Your task to perform on an android device: turn notification dots off Image 0: 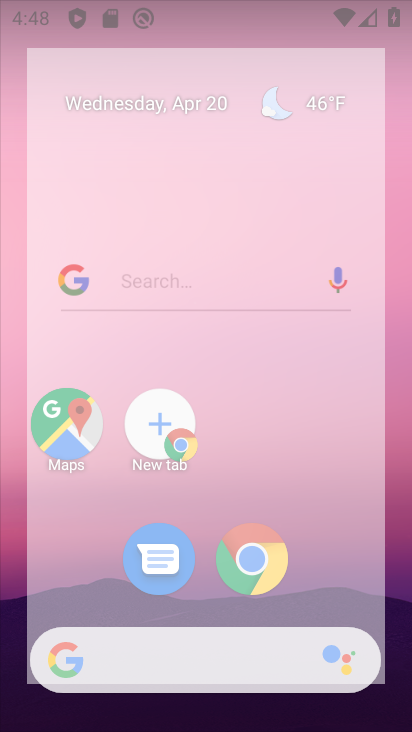
Step 0: drag from (345, 554) to (215, 236)
Your task to perform on an android device: turn notification dots off Image 1: 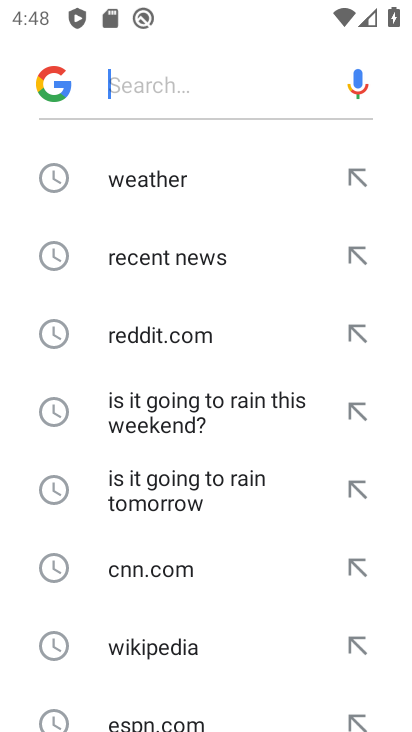
Step 1: press home button
Your task to perform on an android device: turn notification dots off Image 2: 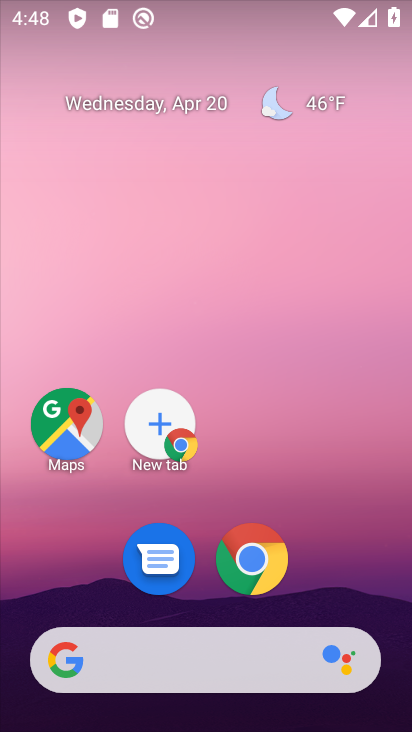
Step 2: drag from (332, 599) to (321, 268)
Your task to perform on an android device: turn notification dots off Image 3: 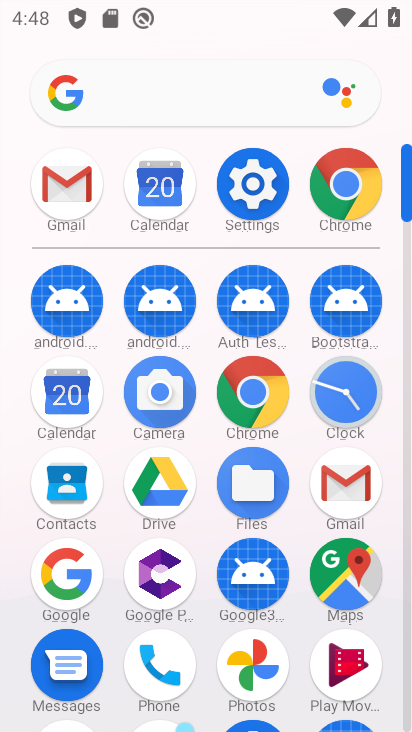
Step 3: click (258, 211)
Your task to perform on an android device: turn notification dots off Image 4: 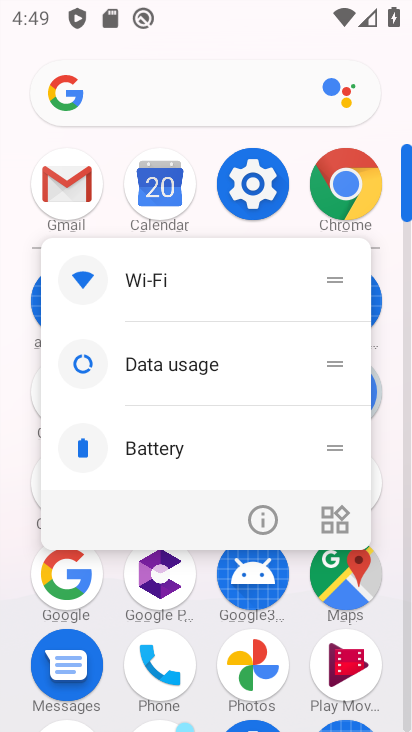
Step 4: click (251, 194)
Your task to perform on an android device: turn notification dots off Image 5: 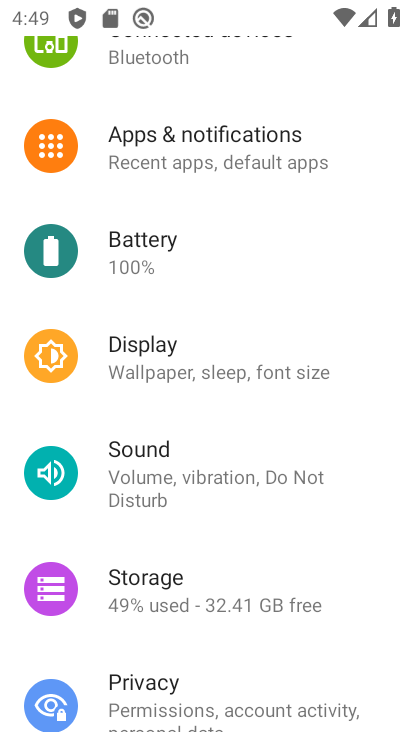
Step 5: drag from (229, 555) to (262, 233)
Your task to perform on an android device: turn notification dots off Image 6: 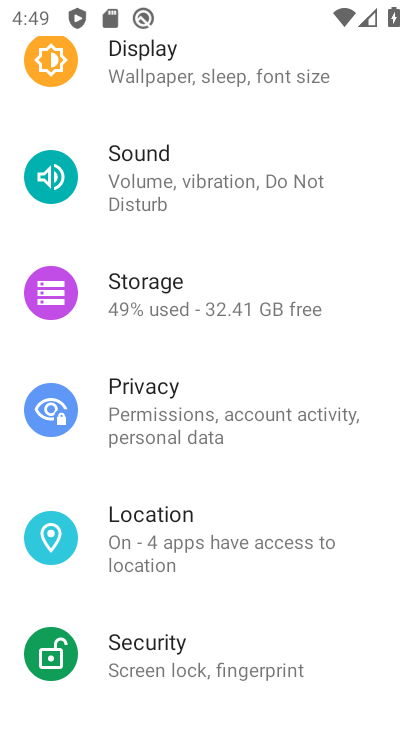
Step 6: drag from (262, 233) to (248, 636)
Your task to perform on an android device: turn notification dots off Image 7: 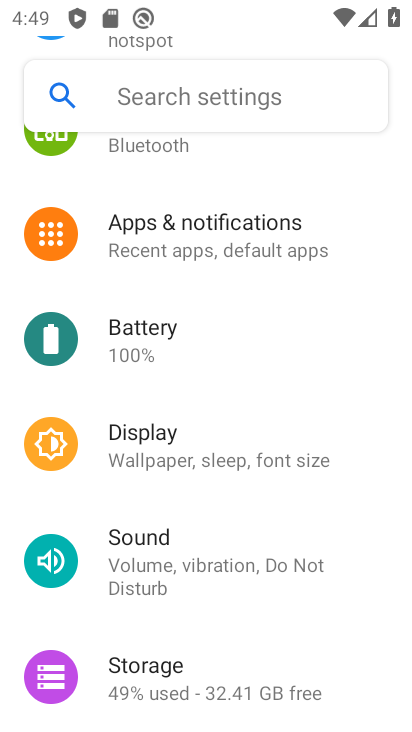
Step 7: click (187, 235)
Your task to perform on an android device: turn notification dots off Image 8: 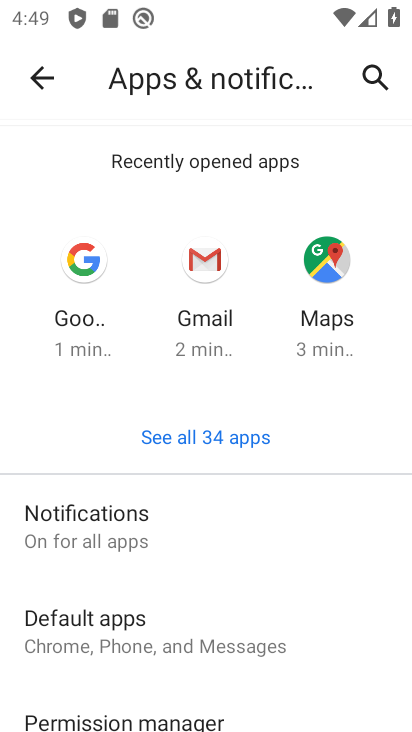
Step 8: drag from (151, 571) to (187, 300)
Your task to perform on an android device: turn notification dots off Image 9: 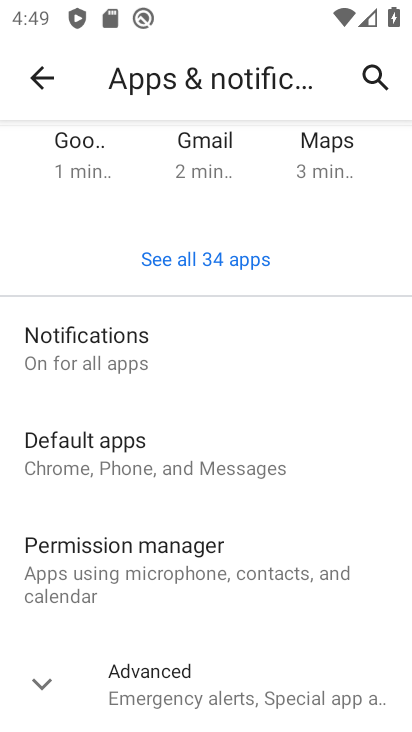
Step 9: drag from (173, 535) to (196, 317)
Your task to perform on an android device: turn notification dots off Image 10: 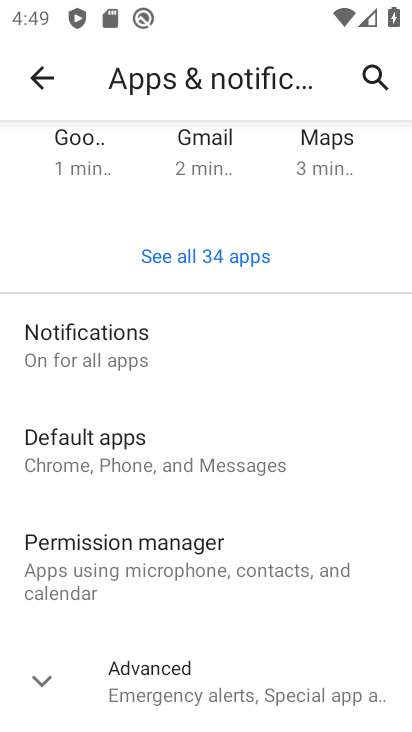
Step 10: click (181, 667)
Your task to perform on an android device: turn notification dots off Image 11: 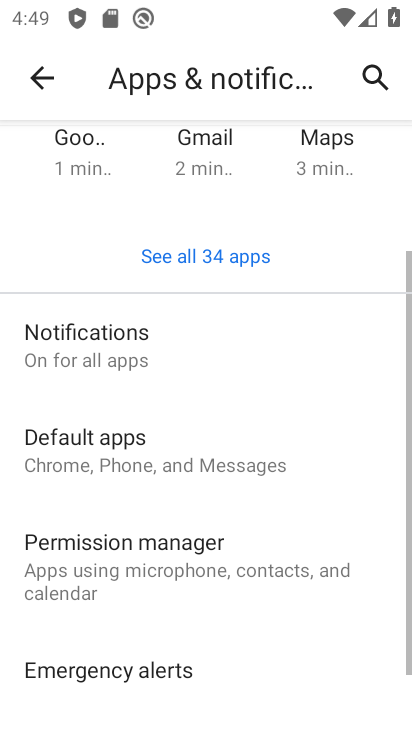
Step 11: drag from (181, 664) to (206, 395)
Your task to perform on an android device: turn notification dots off Image 12: 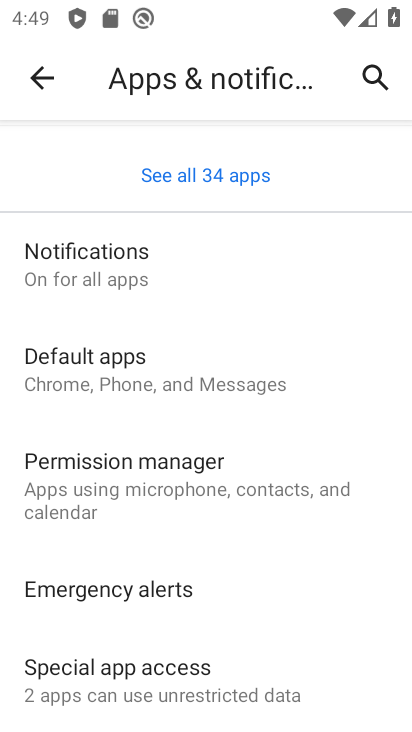
Step 12: click (156, 265)
Your task to perform on an android device: turn notification dots off Image 13: 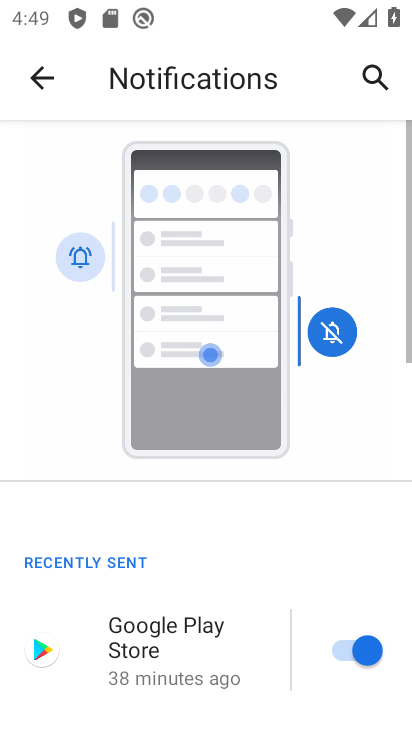
Step 13: drag from (160, 610) to (206, 341)
Your task to perform on an android device: turn notification dots off Image 14: 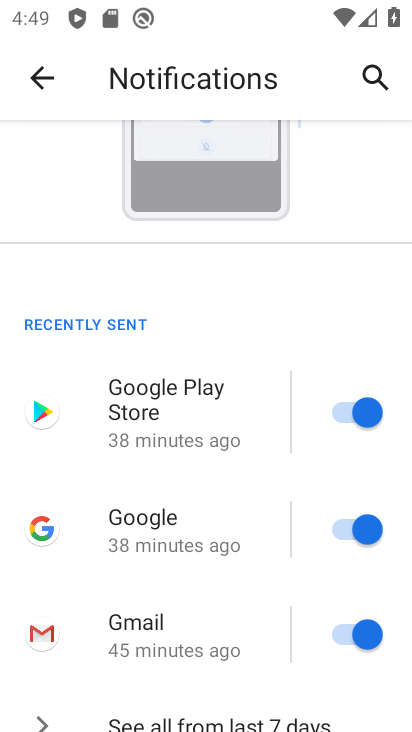
Step 14: drag from (157, 661) to (181, 332)
Your task to perform on an android device: turn notification dots off Image 15: 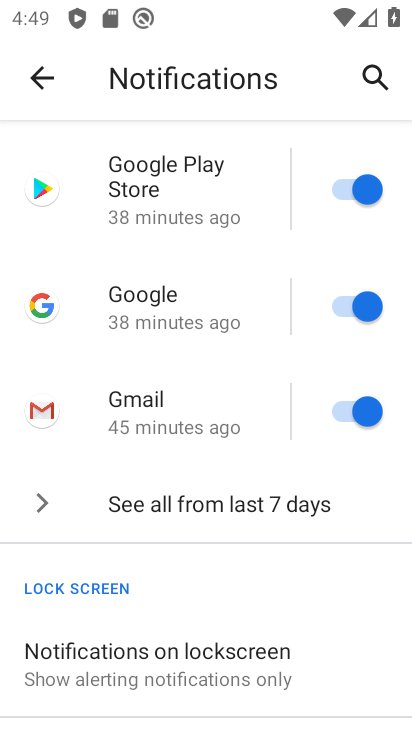
Step 15: click (148, 639)
Your task to perform on an android device: turn notification dots off Image 16: 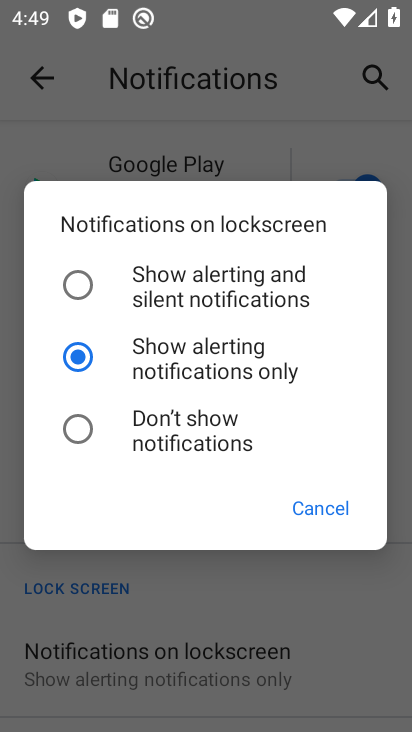
Step 16: click (339, 519)
Your task to perform on an android device: turn notification dots off Image 17: 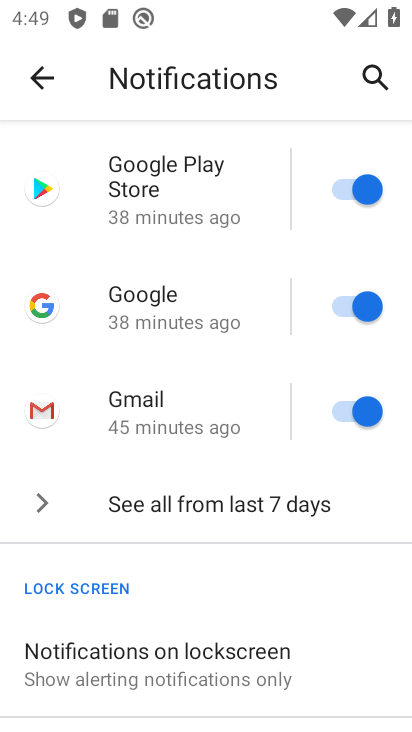
Step 17: drag from (315, 587) to (295, 254)
Your task to perform on an android device: turn notification dots off Image 18: 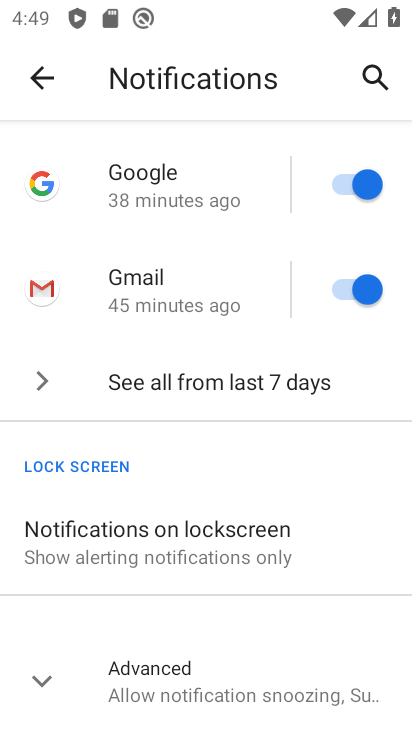
Step 18: click (195, 684)
Your task to perform on an android device: turn notification dots off Image 19: 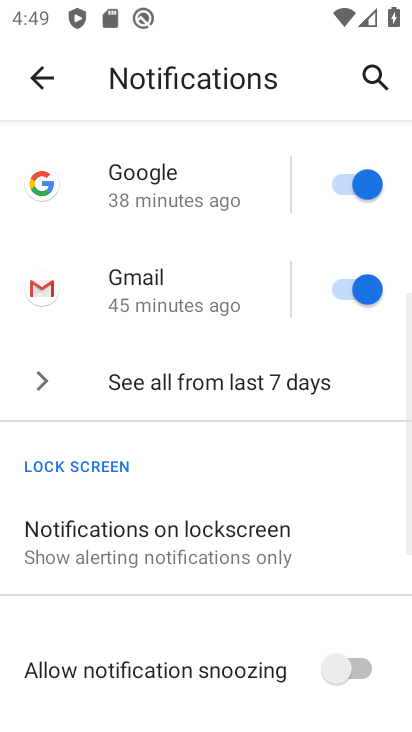
Step 19: drag from (209, 592) to (191, 684)
Your task to perform on an android device: turn notification dots off Image 20: 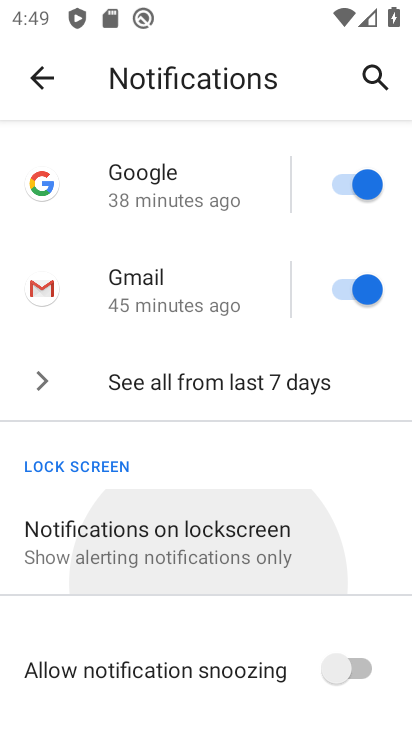
Step 20: click (191, 684)
Your task to perform on an android device: turn notification dots off Image 21: 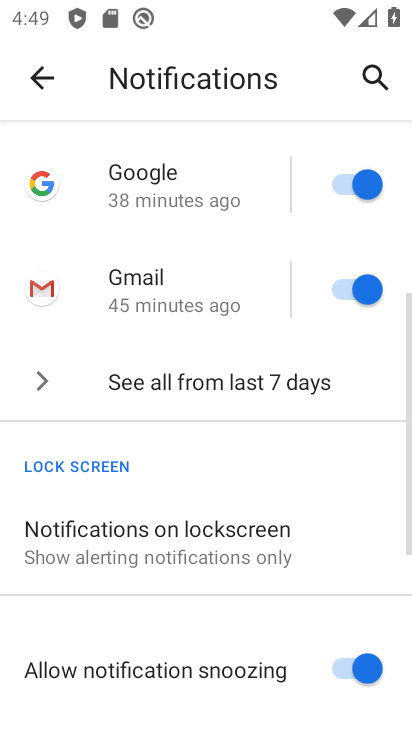
Step 21: drag from (191, 530) to (209, 327)
Your task to perform on an android device: turn notification dots off Image 22: 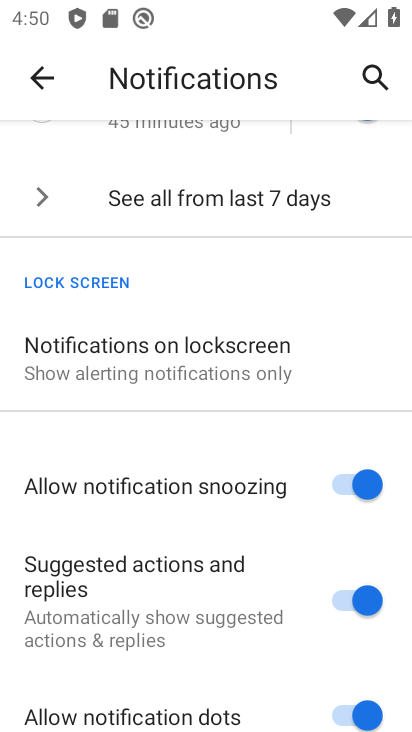
Step 22: click (345, 715)
Your task to perform on an android device: turn notification dots off Image 23: 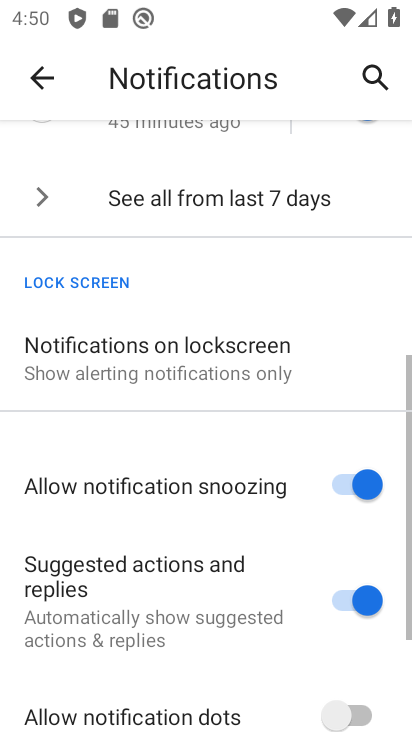
Step 23: task complete